Your task to perform on an android device: change keyboard looks Image 0: 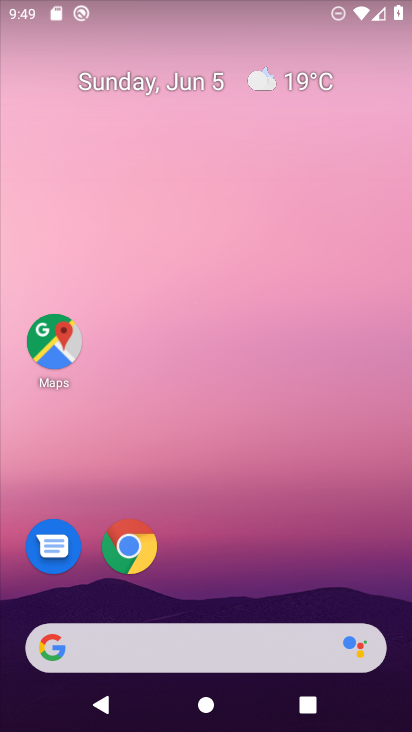
Step 0: drag from (271, 605) to (171, 86)
Your task to perform on an android device: change keyboard looks Image 1: 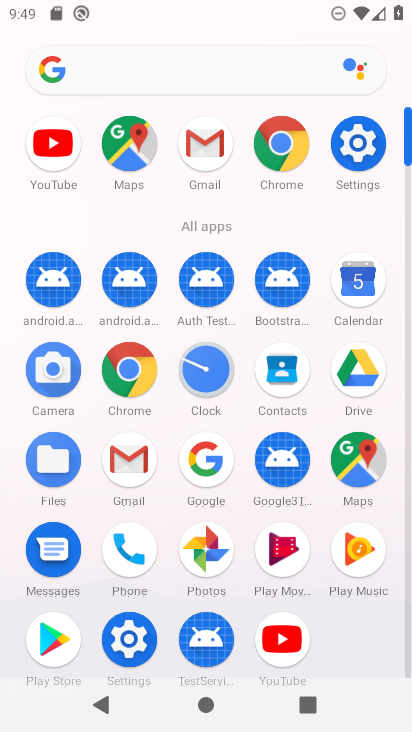
Step 1: click (354, 164)
Your task to perform on an android device: change keyboard looks Image 2: 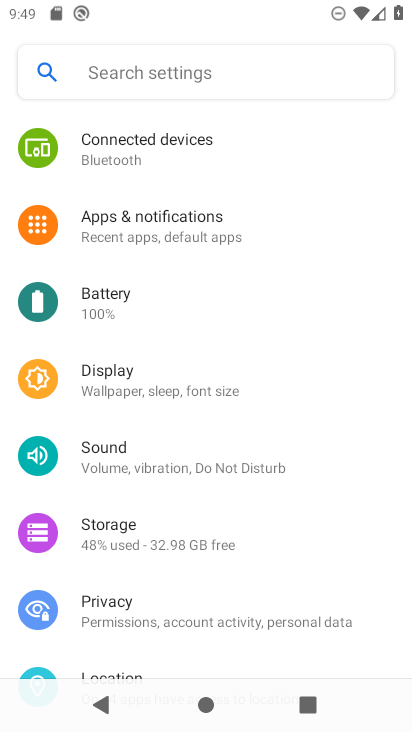
Step 2: drag from (198, 511) to (189, 20)
Your task to perform on an android device: change keyboard looks Image 3: 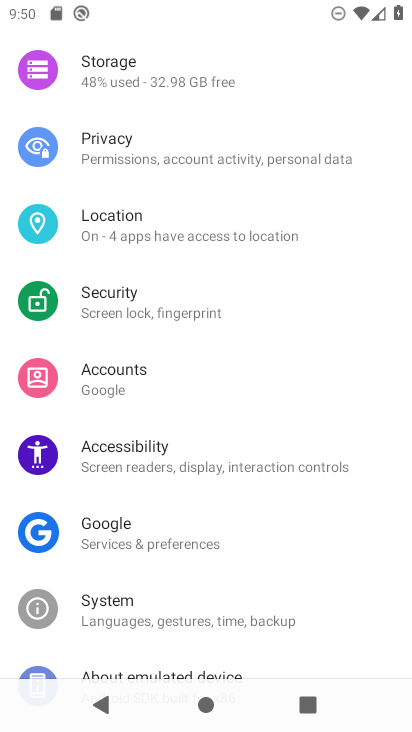
Step 3: drag from (212, 427) to (195, 144)
Your task to perform on an android device: change keyboard looks Image 4: 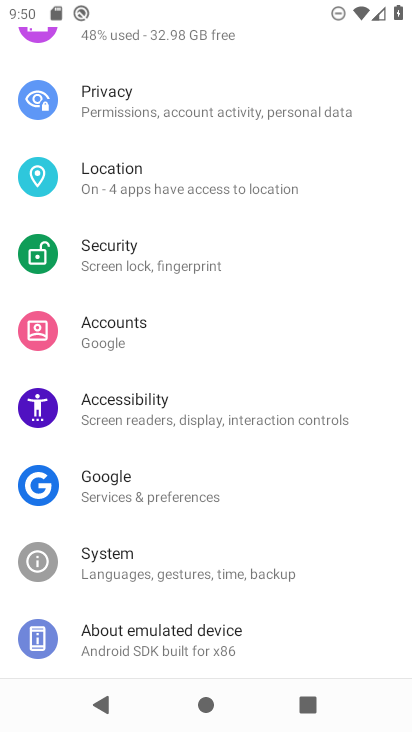
Step 4: click (123, 575)
Your task to perform on an android device: change keyboard looks Image 5: 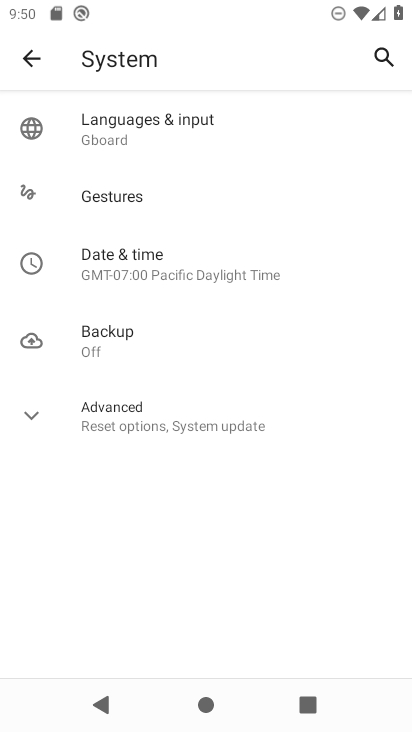
Step 5: click (93, 119)
Your task to perform on an android device: change keyboard looks Image 6: 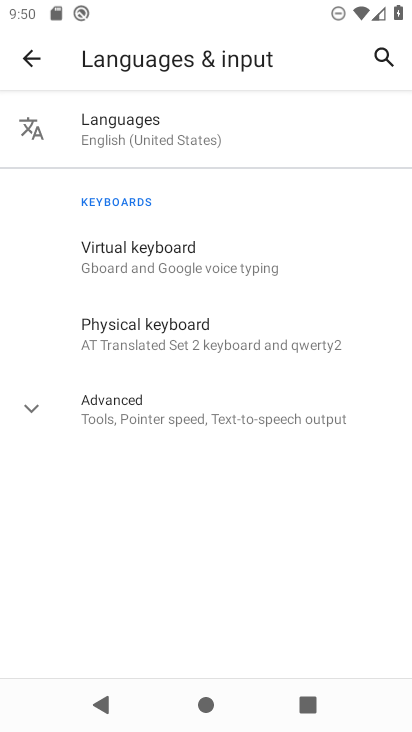
Step 6: click (137, 249)
Your task to perform on an android device: change keyboard looks Image 7: 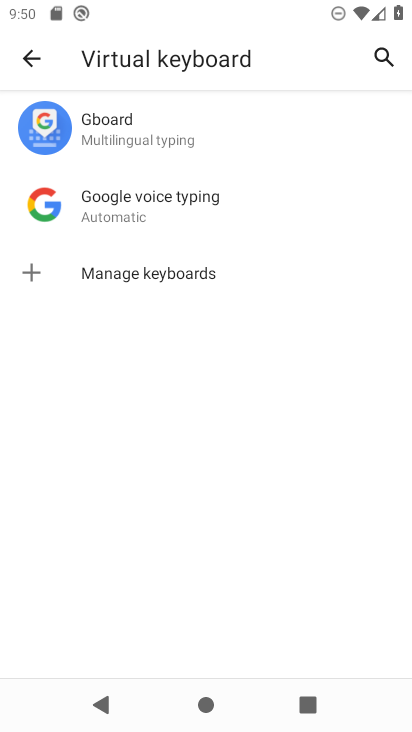
Step 7: click (136, 152)
Your task to perform on an android device: change keyboard looks Image 8: 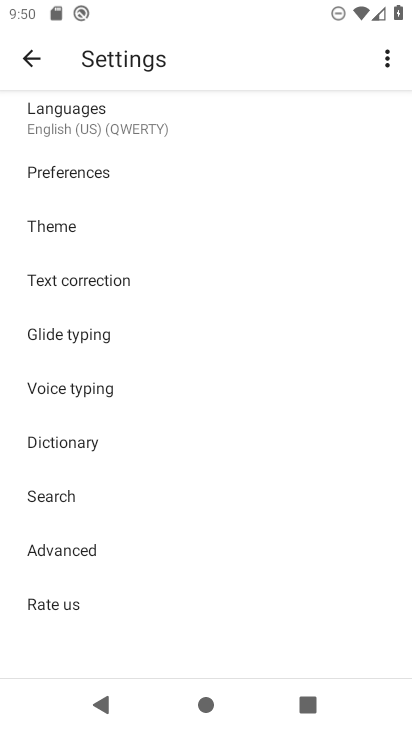
Step 8: click (50, 216)
Your task to perform on an android device: change keyboard looks Image 9: 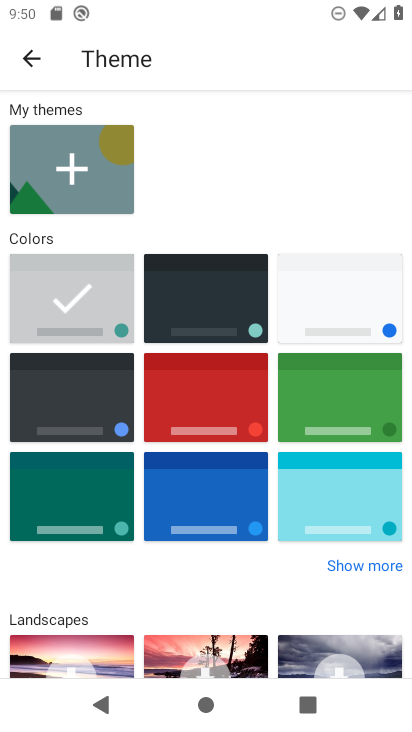
Step 9: task complete